Your task to perform on an android device: Open CNN.com Image 0: 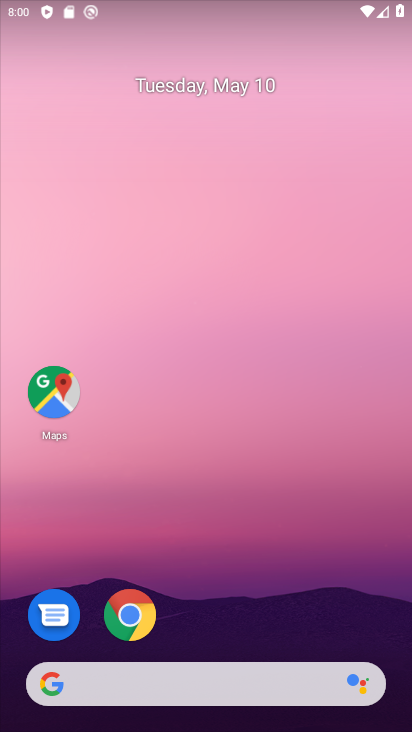
Step 0: drag from (211, 627) to (256, 185)
Your task to perform on an android device: Open CNN.com Image 1: 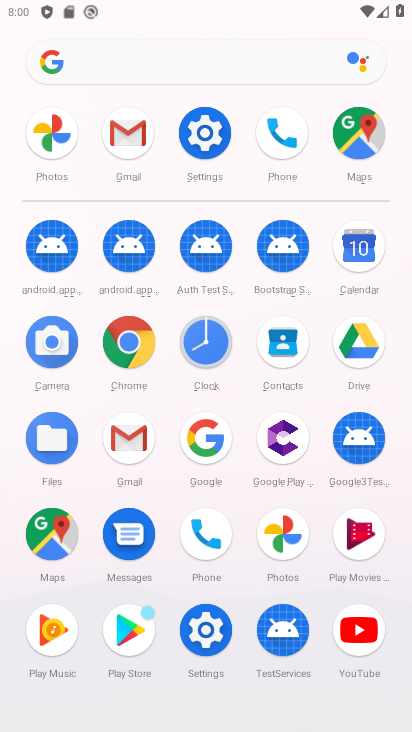
Step 1: click (243, 56)
Your task to perform on an android device: Open CNN.com Image 2: 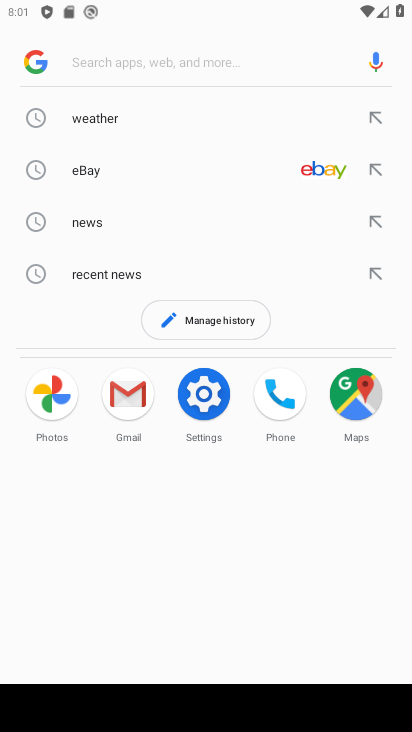
Step 2: type "cnn"
Your task to perform on an android device: Open CNN.com Image 3: 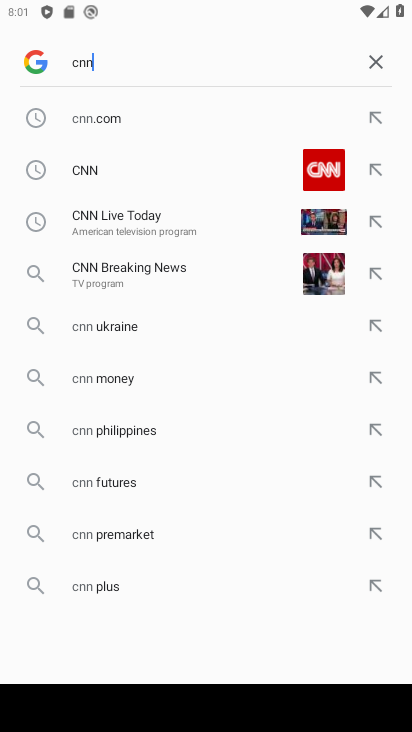
Step 3: click (139, 121)
Your task to perform on an android device: Open CNN.com Image 4: 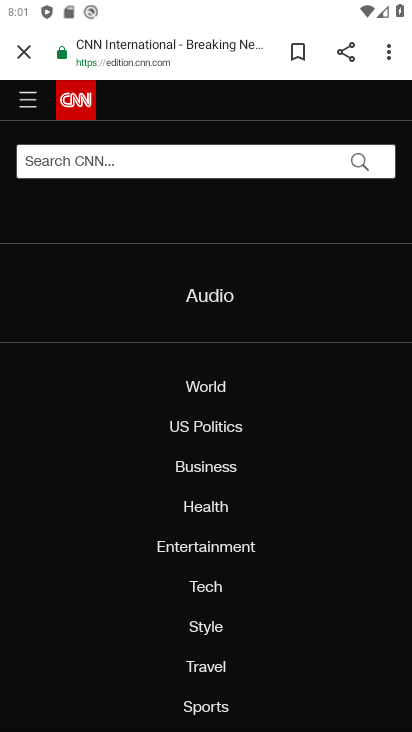
Step 4: task complete